Your task to perform on an android device: Clear all items from cart on ebay. Image 0: 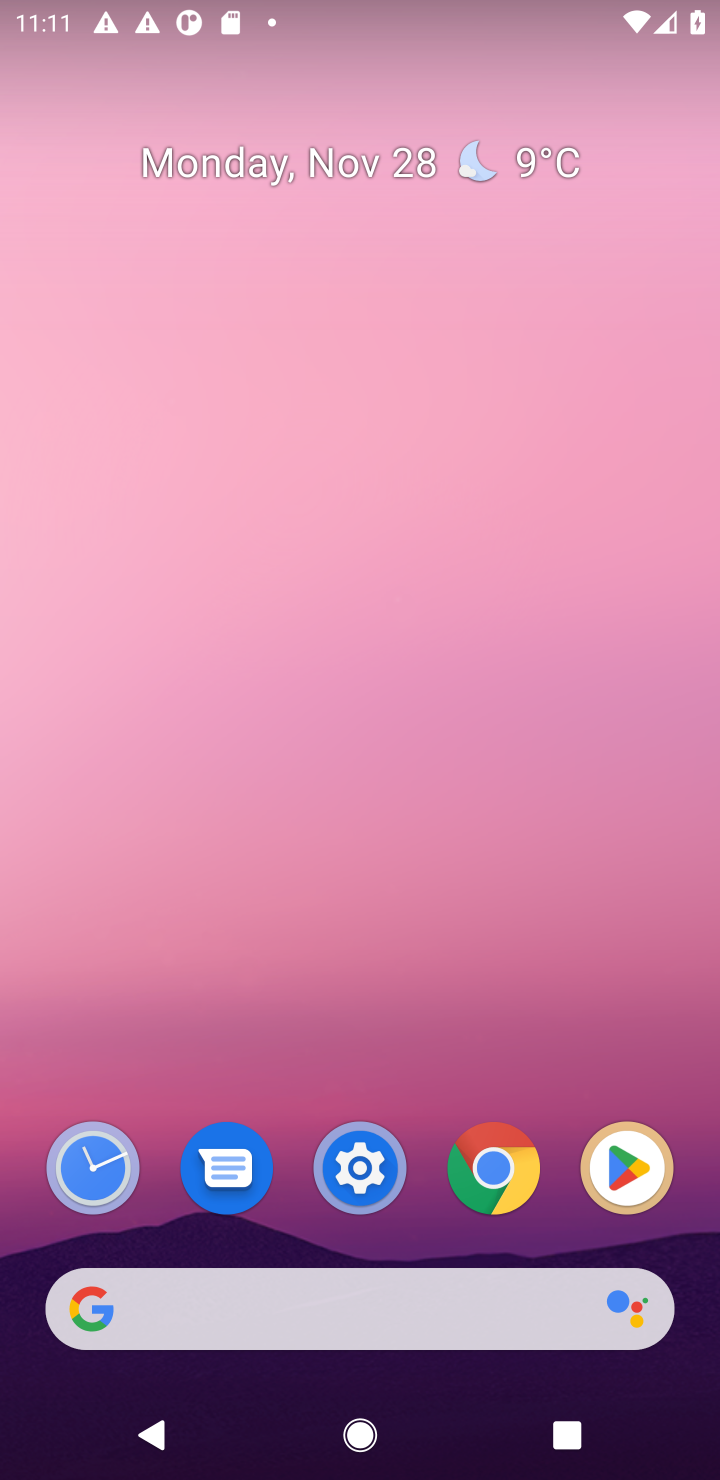
Step 0: click (322, 1295)
Your task to perform on an android device: Clear all items from cart on ebay. Image 1: 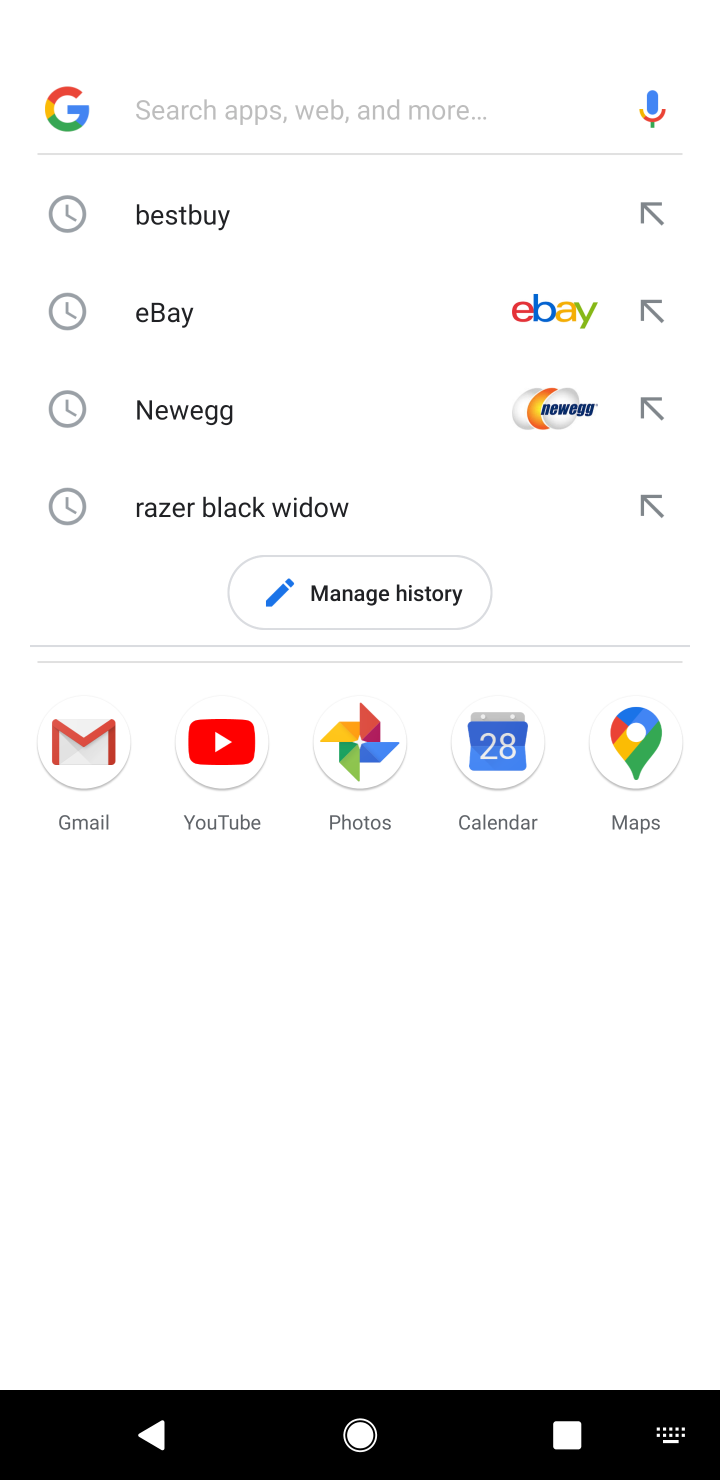
Step 1: click (396, 343)
Your task to perform on an android device: Clear all items from cart on ebay. Image 2: 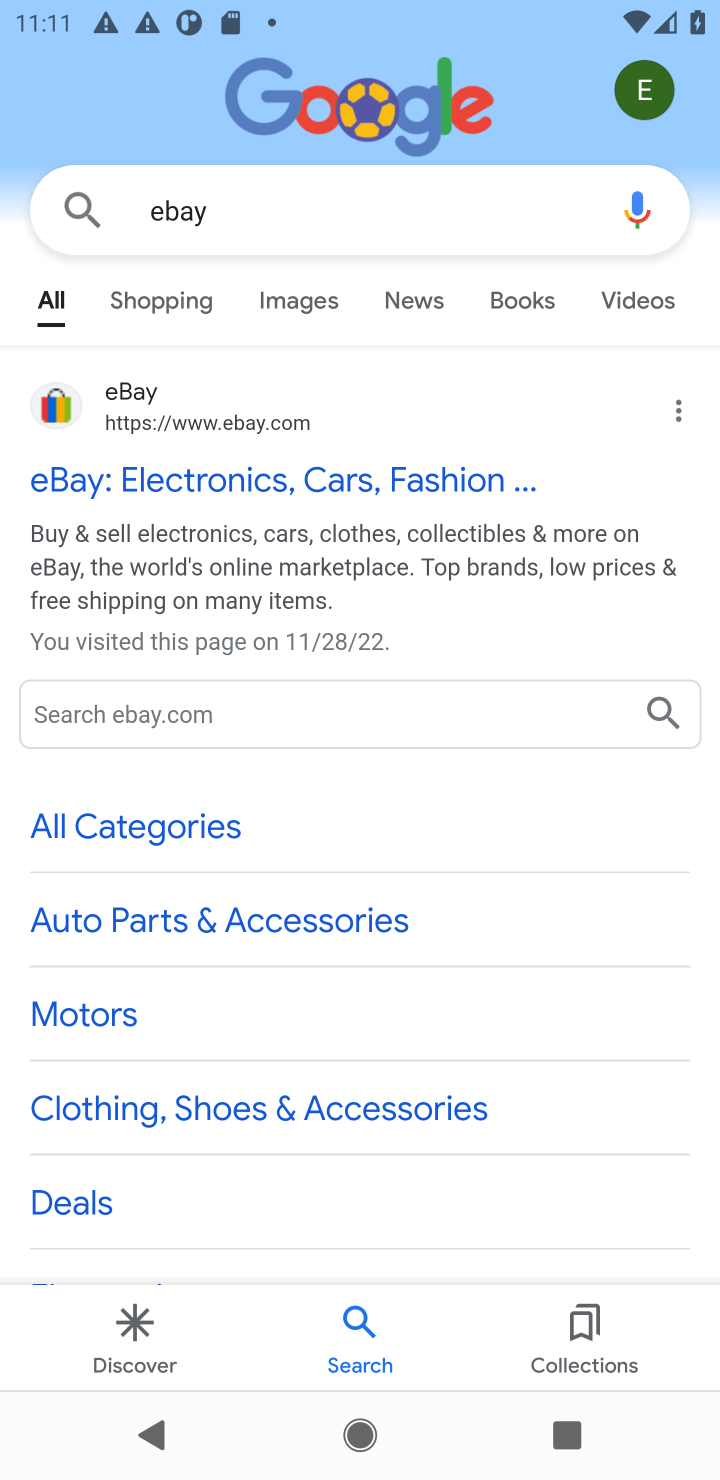
Step 2: click (296, 493)
Your task to perform on an android device: Clear all items from cart on ebay. Image 3: 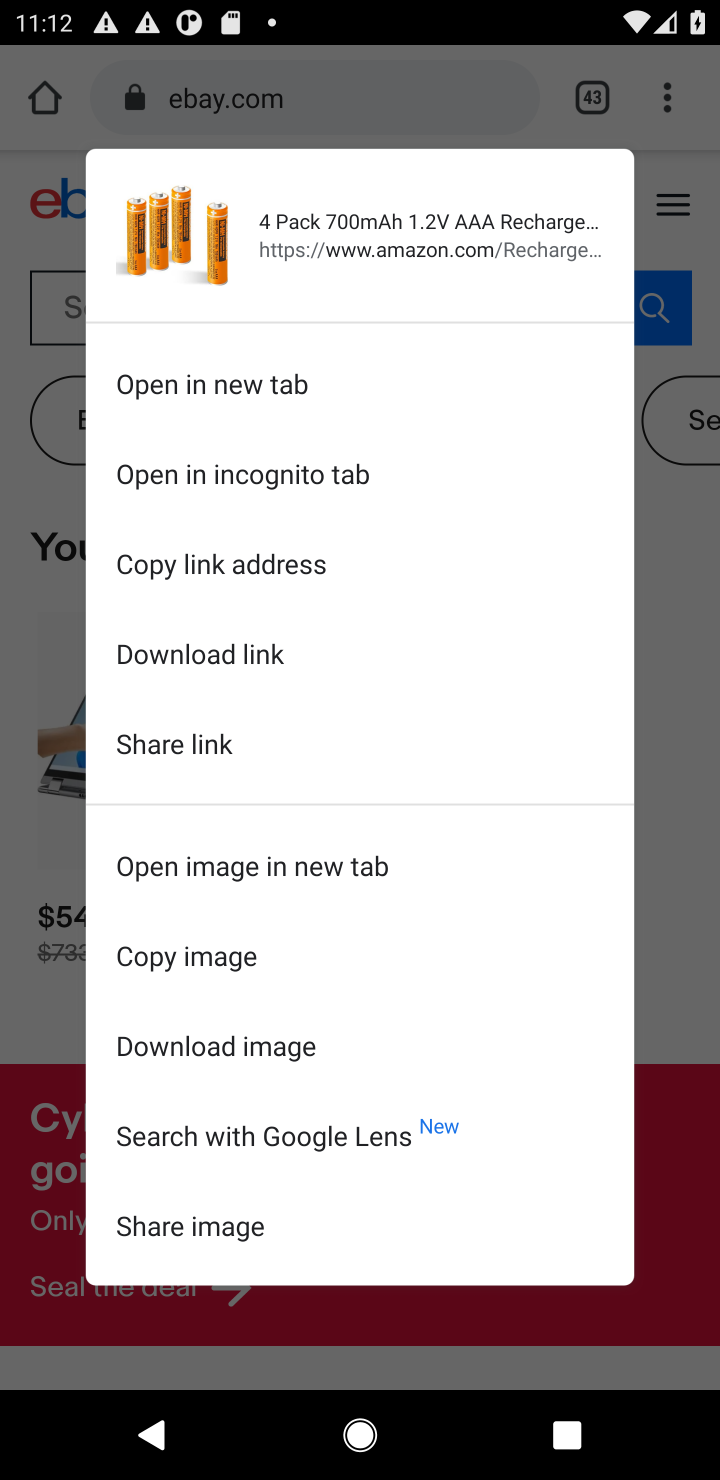
Step 3: task complete